Your task to perform on an android device: turn on the 12-hour format for clock Image 0: 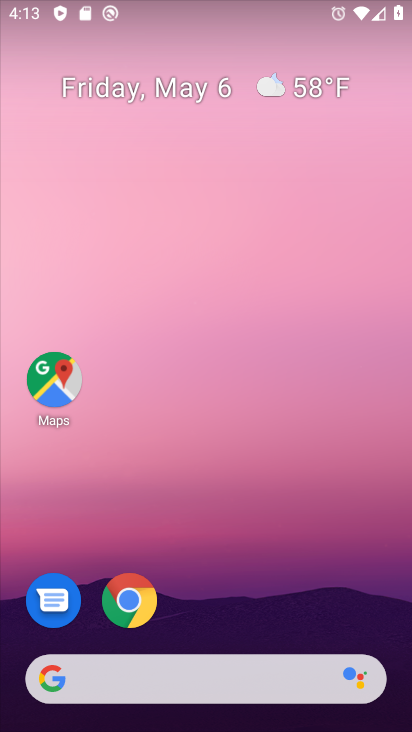
Step 0: drag from (217, 612) to (337, 5)
Your task to perform on an android device: turn on the 12-hour format for clock Image 1: 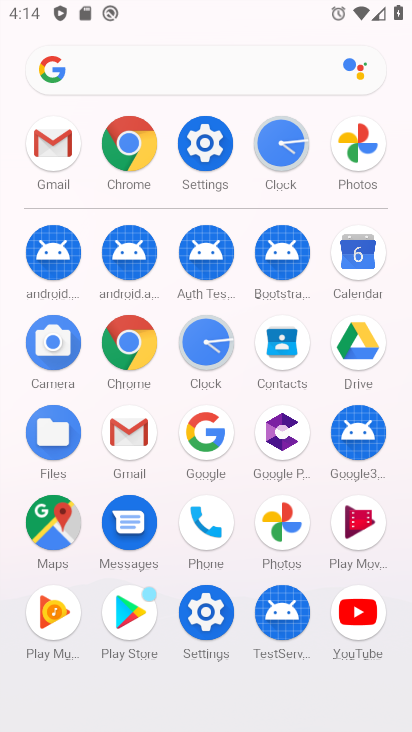
Step 1: click (207, 635)
Your task to perform on an android device: turn on the 12-hour format for clock Image 2: 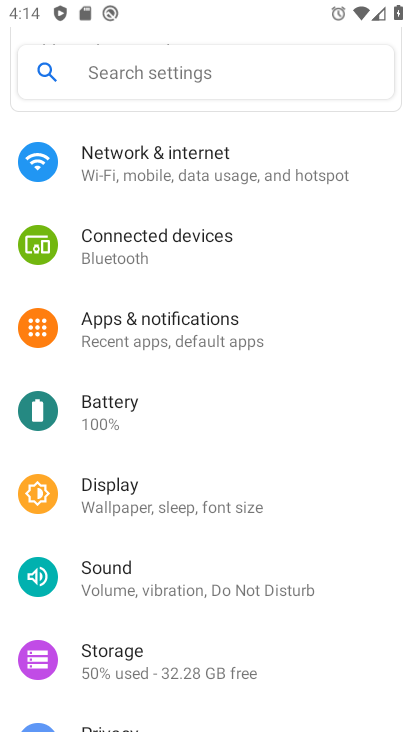
Step 2: drag from (165, 680) to (195, 346)
Your task to perform on an android device: turn on the 12-hour format for clock Image 3: 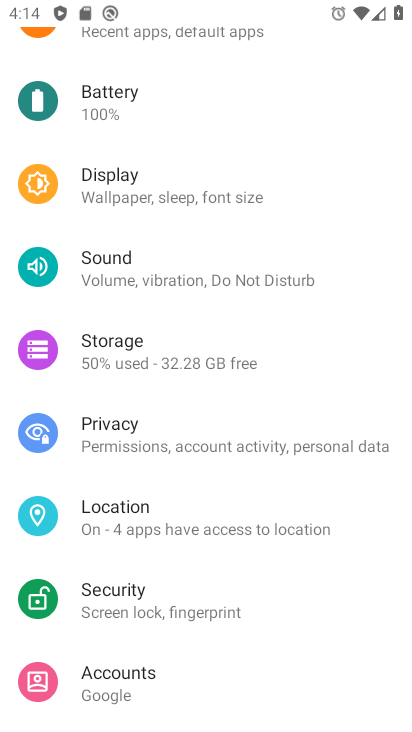
Step 3: drag from (133, 629) to (205, 289)
Your task to perform on an android device: turn on the 12-hour format for clock Image 4: 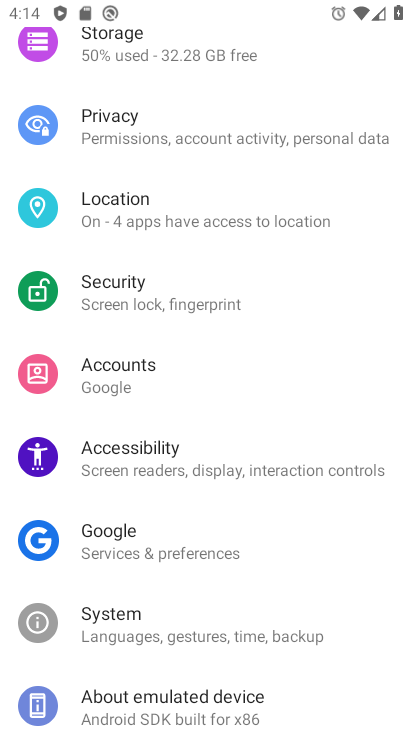
Step 4: drag from (139, 642) to (186, 406)
Your task to perform on an android device: turn on the 12-hour format for clock Image 5: 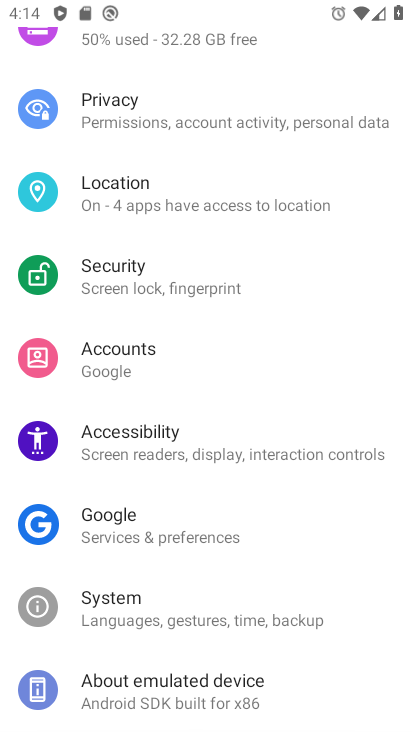
Step 5: click (130, 618)
Your task to perform on an android device: turn on the 12-hour format for clock Image 6: 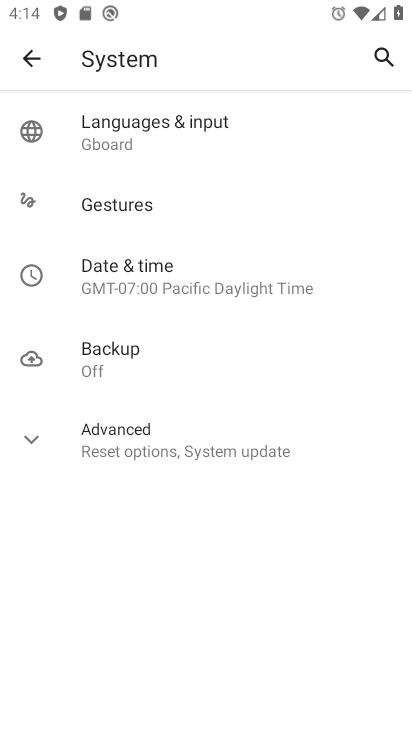
Step 6: click (146, 288)
Your task to perform on an android device: turn on the 12-hour format for clock Image 7: 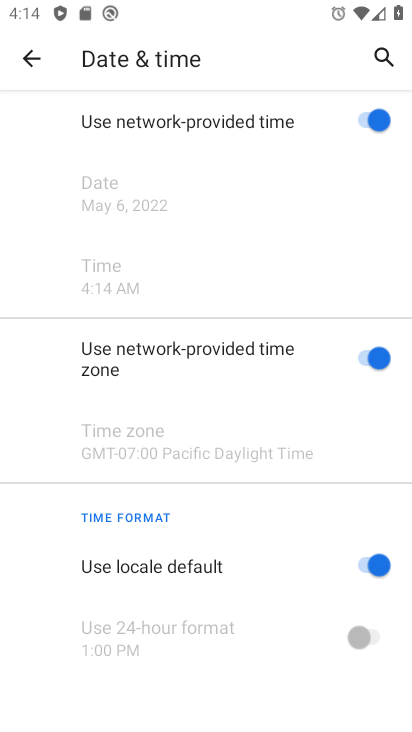
Step 7: task complete